Your task to perform on an android device: uninstall "Firefox Browser" Image 0: 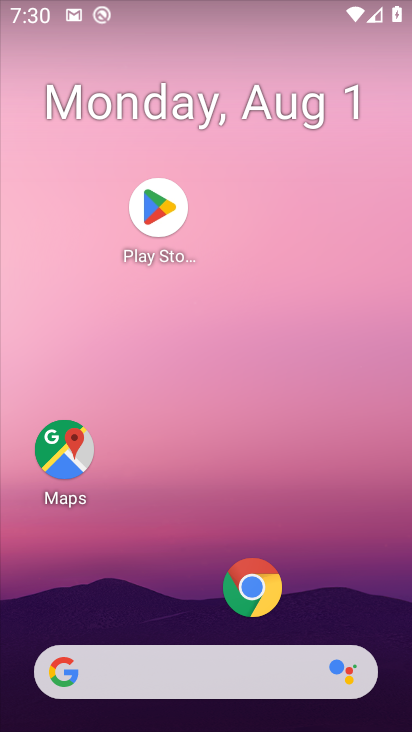
Step 0: click (157, 243)
Your task to perform on an android device: uninstall "Firefox Browser" Image 1: 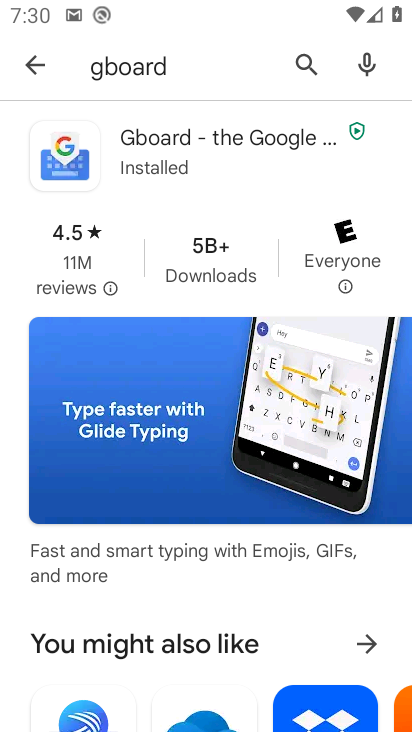
Step 1: click (321, 64)
Your task to perform on an android device: uninstall "Firefox Browser" Image 2: 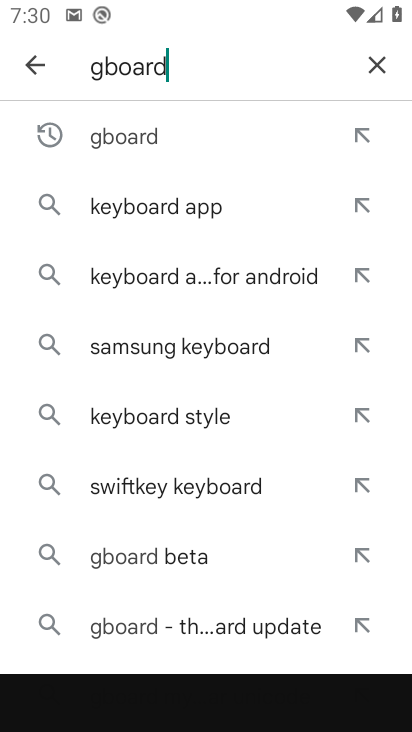
Step 2: click (375, 65)
Your task to perform on an android device: uninstall "Firefox Browser" Image 3: 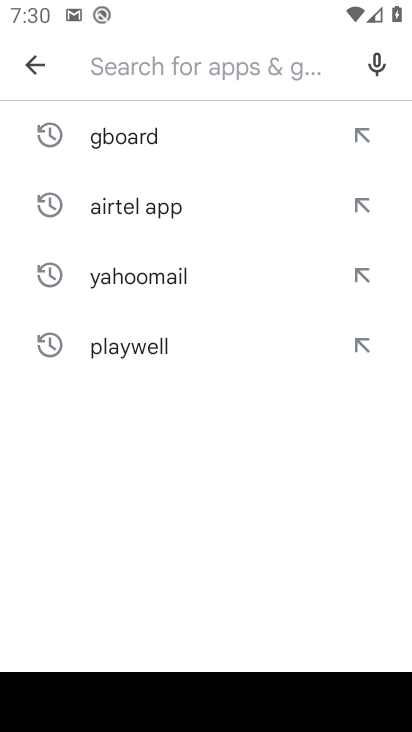
Step 3: type "ebay"
Your task to perform on an android device: uninstall "Firefox Browser" Image 4: 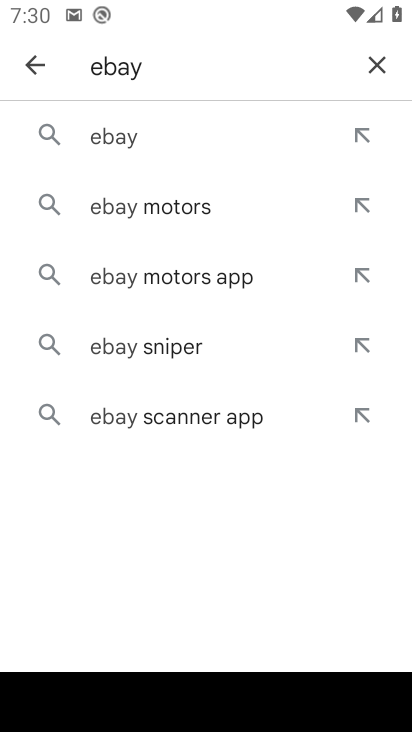
Step 4: click (200, 156)
Your task to perform on an android device: uninstall "Firefox Browser" Image 5: 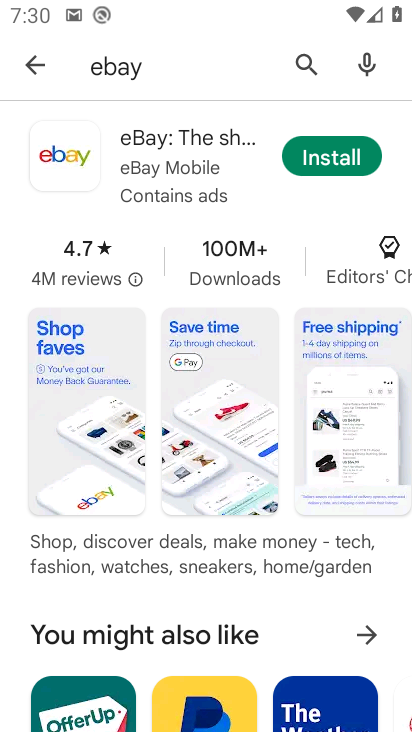
Step 5: click (323, 162)
Your task to perform on an android device: uninstall "Firefox Browser" Image 6: 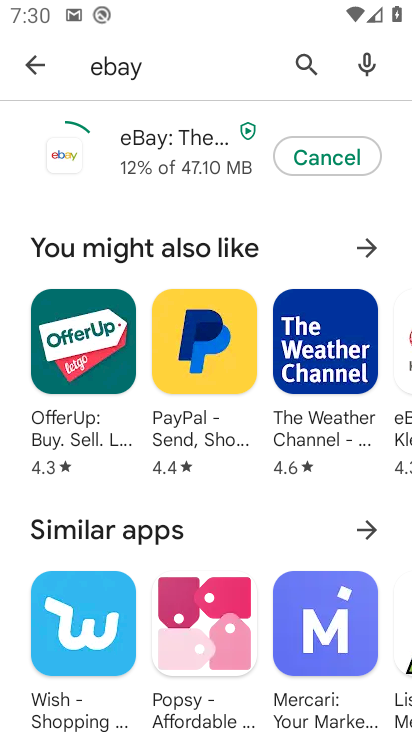
Step 6: task complete